Your task to perform on an android device: check battery use Image 0: 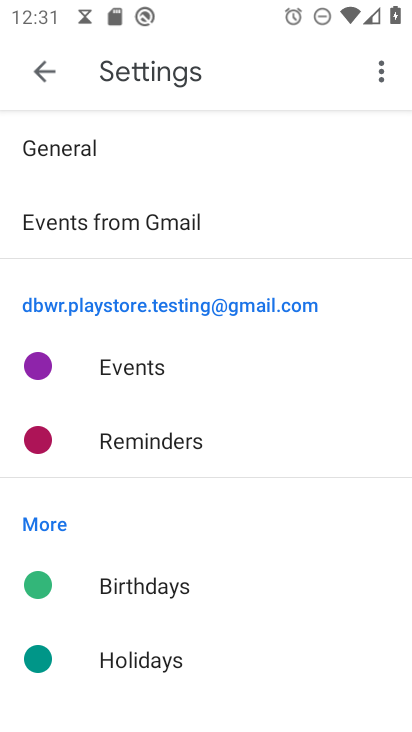
Step 0: press home button
Your task to perform on an android device: check battery use Image 1: 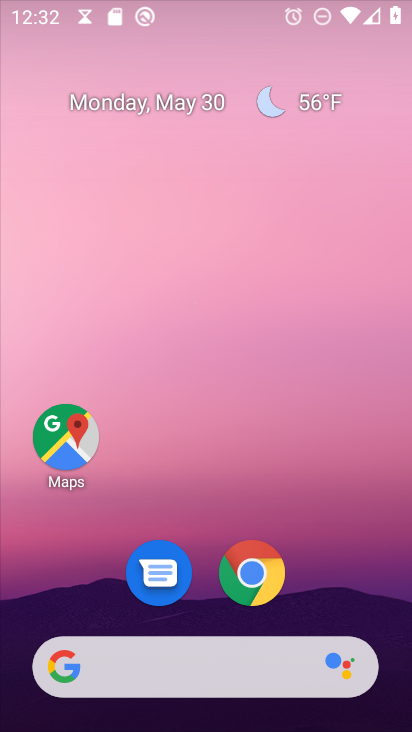
Step 1: drag from (280, 661) to (342, 21)
Your task to perform on an android device: check battery use Image 2: 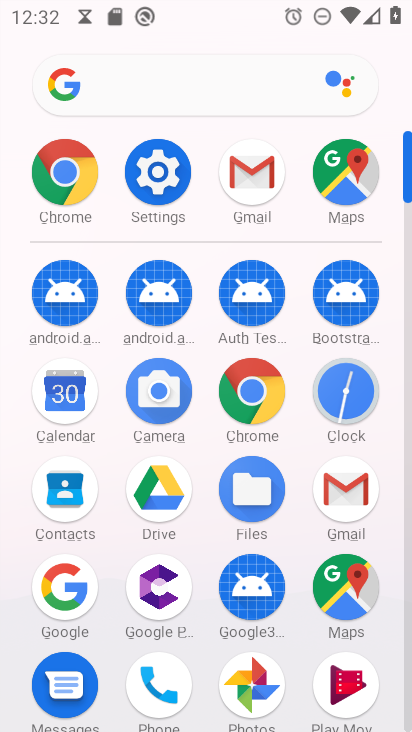
Step 2: click (174, 172)
Your task to perform on an android device: check battery use Image 3: 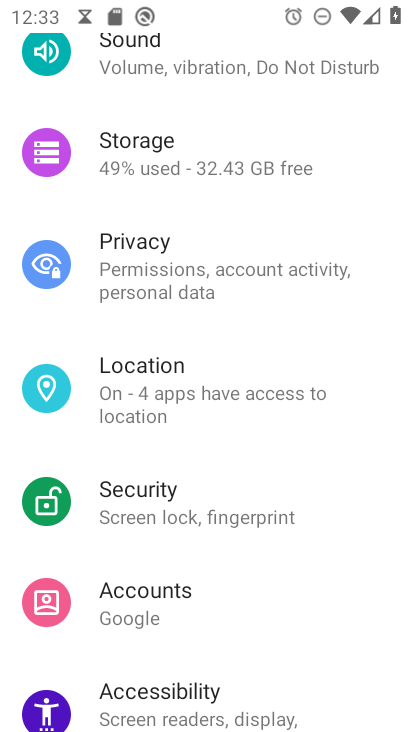
Step 3: drag from (239, 206) to (229, 730)
Your task to perform on an android device: check battery use Image 4: 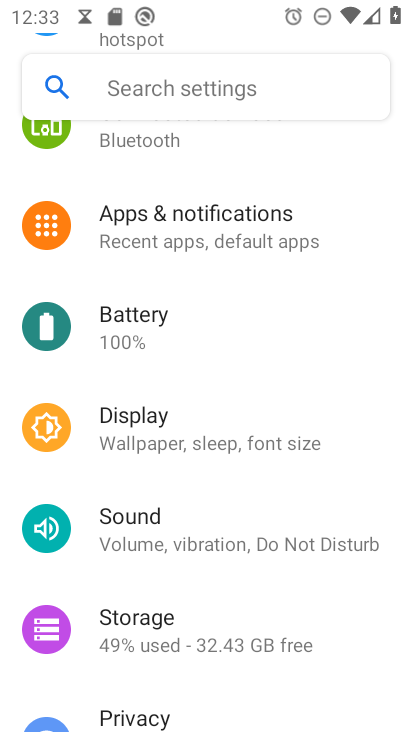
Step 4: click (120, 333)
Your task to perform on an android device: check battery use Image 5: 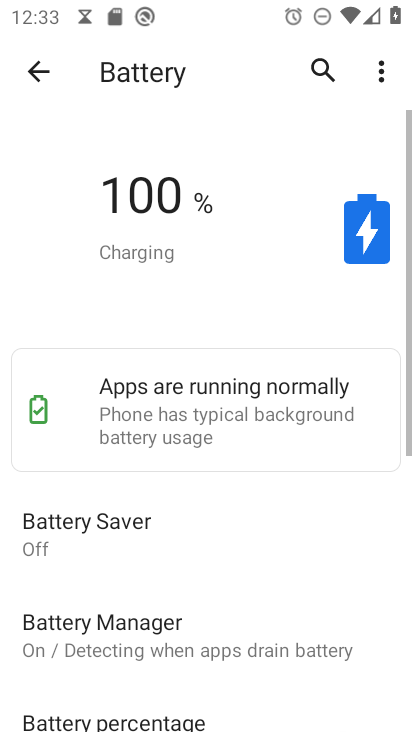
Step 5: task complete